Your task to perform on an android device: delete browsing data in the chrome app Image 0: 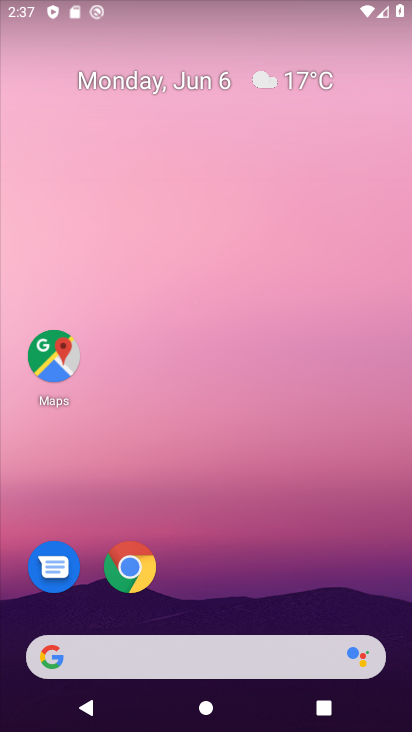
Step 0: click (133, 571)
Your task to perform on an android device: delete browsing data in the chrome app Image 1: 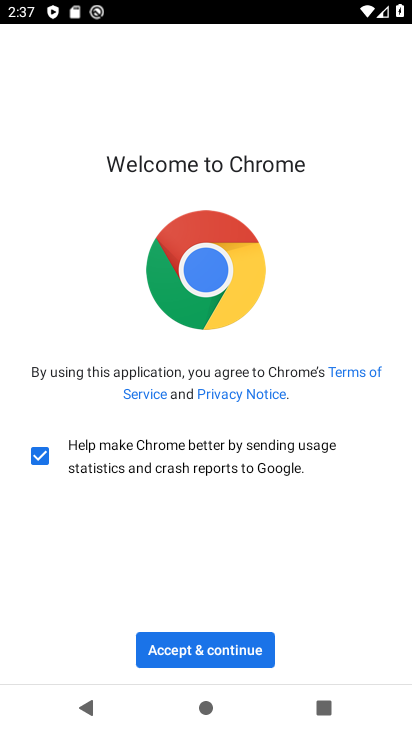
Step 1: click (261, 668)
Your task to perform on an android device: delete browsing data in the chrome app Image 2: 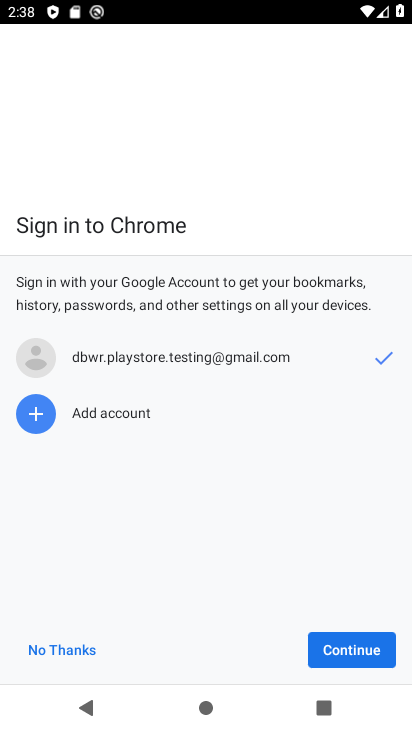
Step 2: click (370, 665)
Your task to perform on an android device: delete browsing data in the chrome app Image 3: 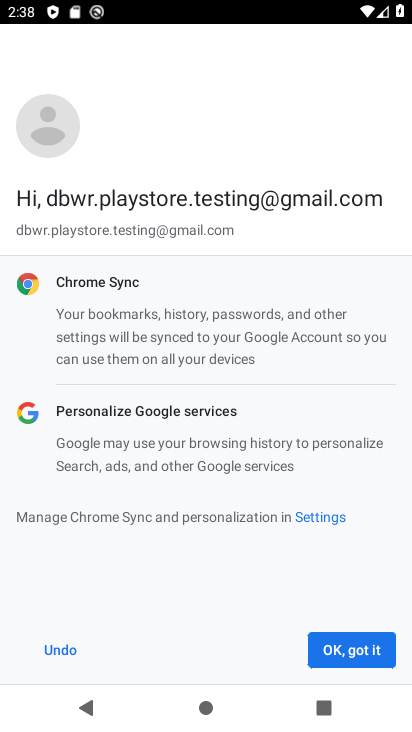
Step 3: click (366, 652)
Your task to perform on an android device: delete browsing data in the chrome app Image 4: 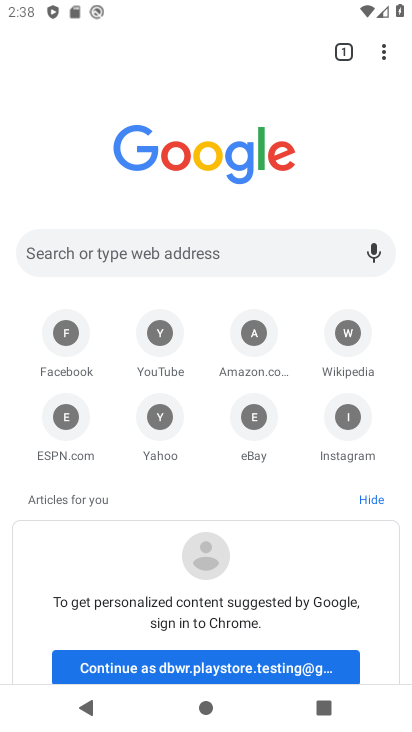
Step 4: task complete